Your task to perform on an android device: Open Google Chrome and open the bookmarks view Image 0: 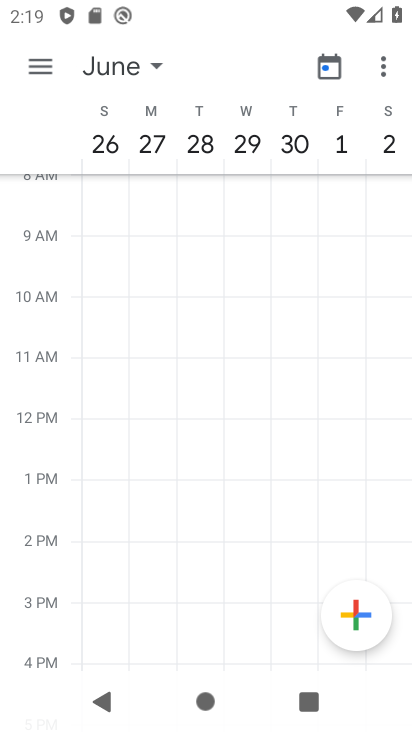
Step 0: press home button
Your task to perform on an android device: Open Google Chrome and open the bookmarks view Image 1: 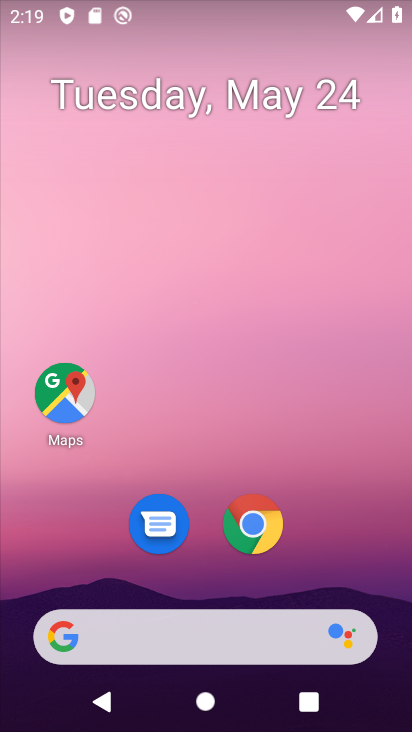
Step 1: click (243, 528)
Your task to perform on an android device: Open Google Chrome and open the bookmarks view Image 2: 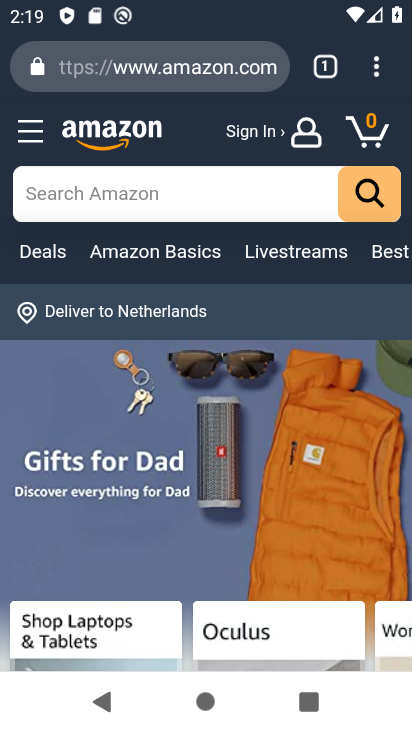
Step 2: click (375, 73)
Your task to perform on an android device: Open Google Chrome and open the bookmarks view Image 3: 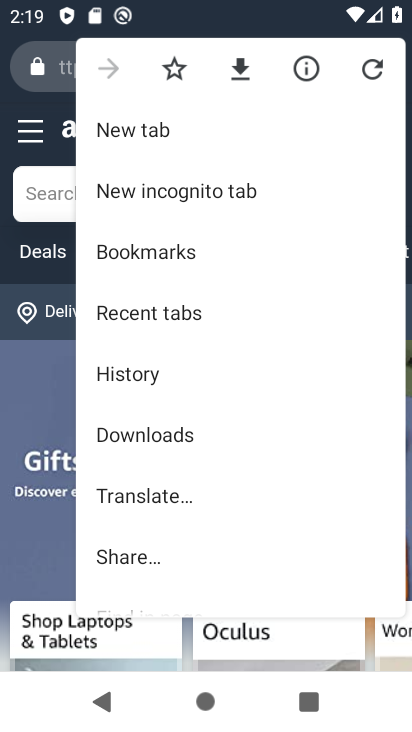
Step 3: click (194, 246)
Your task to perform on an android device: Open Google Chrome and open the bookmarks view Image 4: 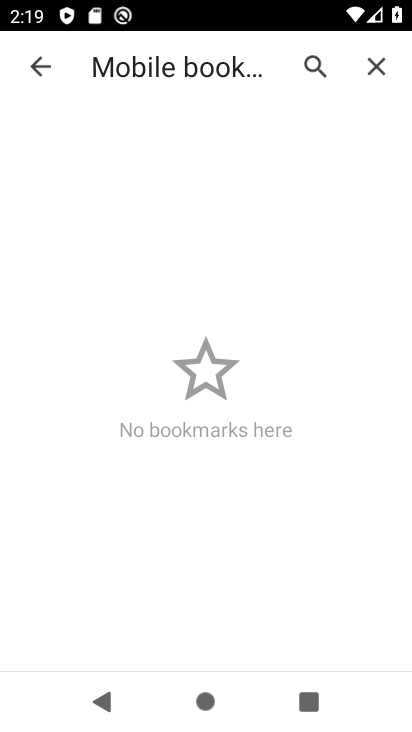
Step 4: task complete